Your task to perform on an android device: allow notifications from all sites in the chrome app Image 0: 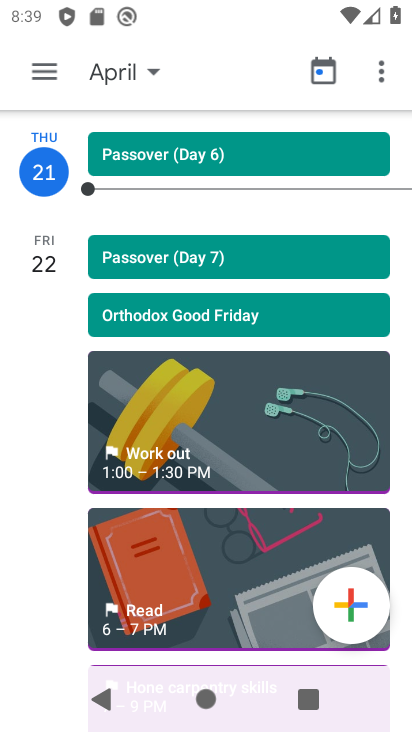
Step 0: press home button
Your task to perform on an android device: allow notifications from all sites in the chrome app Image 1: 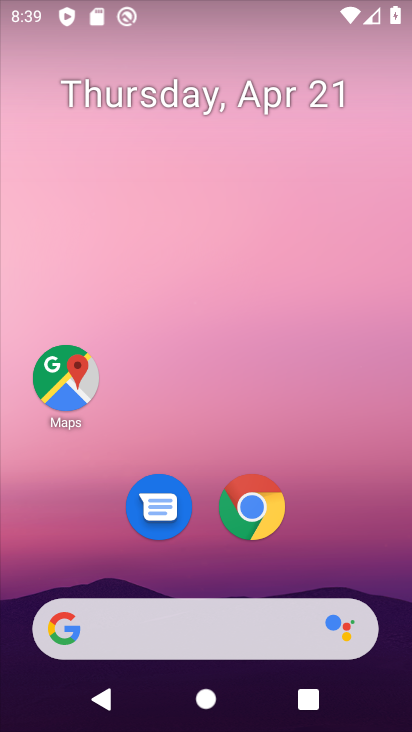
Step 1: drag from (368, 533) to (348, 137)
Your task to perform on an android device: allow notifications from all sites in the chrome app Image 2: 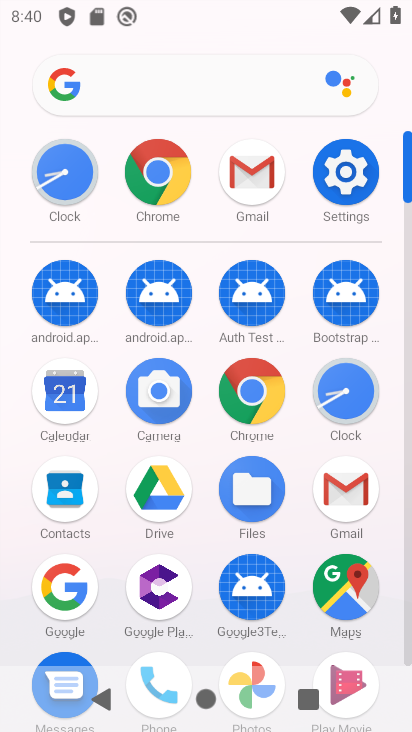
Step 2: click (272, 396)
Your task to perform on an android device: allow notifications from all sites in the chrome app Image 3: 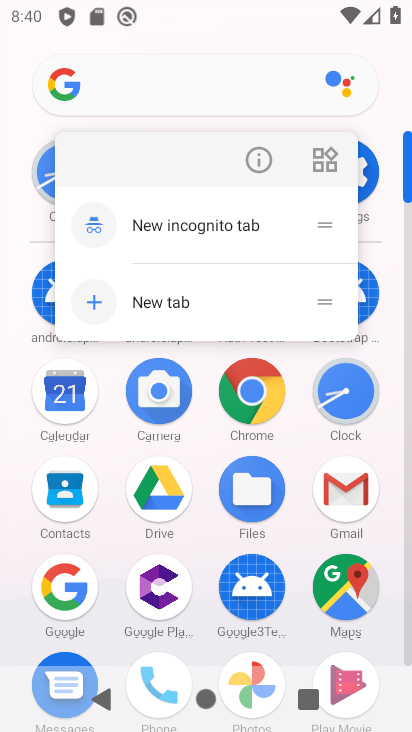
Step 3: click (275, 392)
Your task to perform on an android device: allow notifications from all sites in the chrome app Image 4: 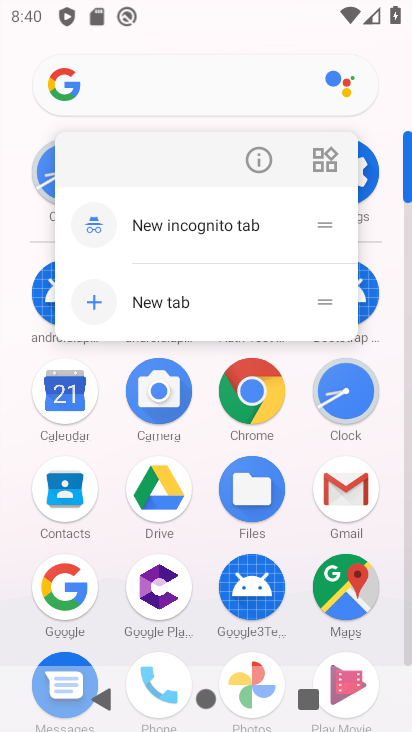
Step 4: click (240, 412)
Your task to perform on an android device: allow notifications from all sites in the chrome app Image 5: 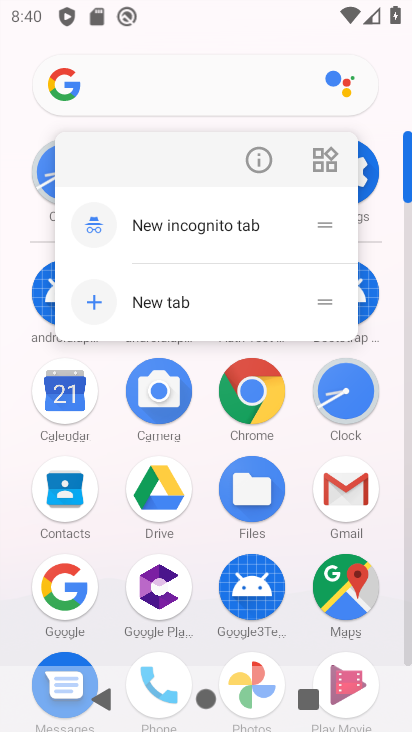
Step 5: click (241, 413)
Your task to perform on an android device: allow notifications from all sites in the chrome app Image 6: 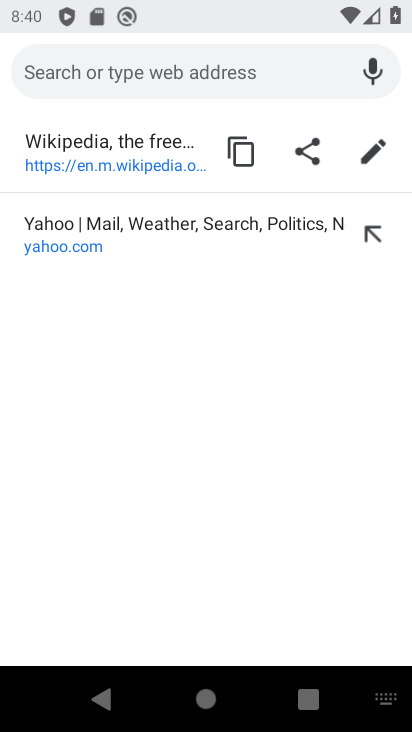
Step 6: press back button
Your task to perform on an android device: allow notifications from all sites in the chrome app Image 7: 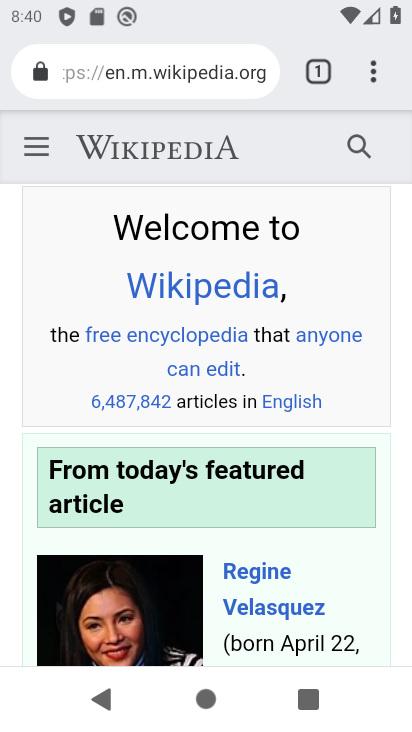
Step 7: drag from (382, 75) to (237, 507)
Your task to perform on an android device: allow notifications from all sites in the chrome app Image 8: 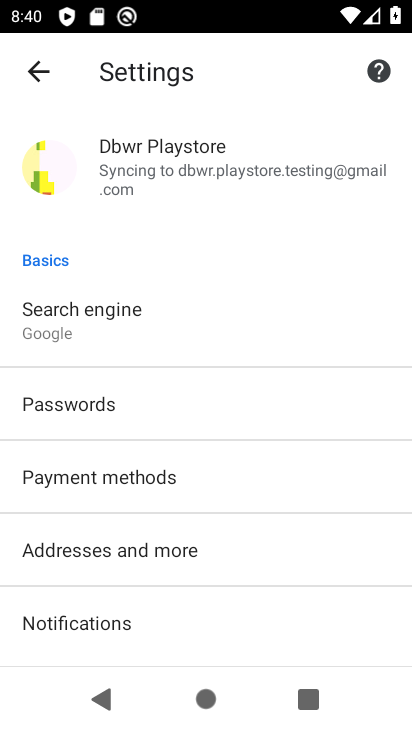
Step 8: drag from (211, 618) to (248, 268)
Your task to perform on an android device: allow notifications from all sites in the chrome app Image 9: 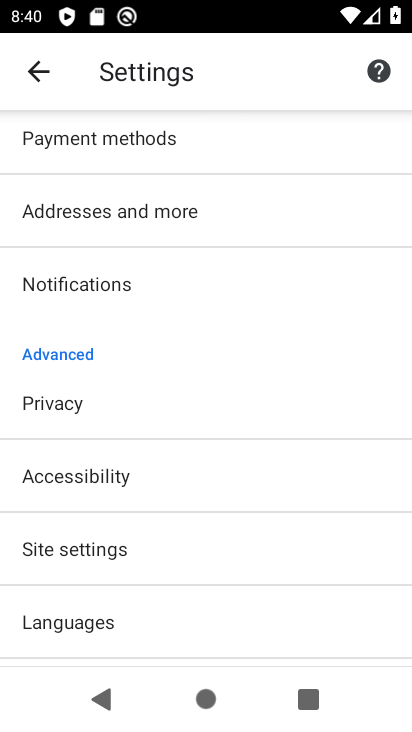
Step 9: drag from (320, 600) to (320, 378)
Your task to perform on an android device: allow notifications from all sites in the chrome app Image 10: 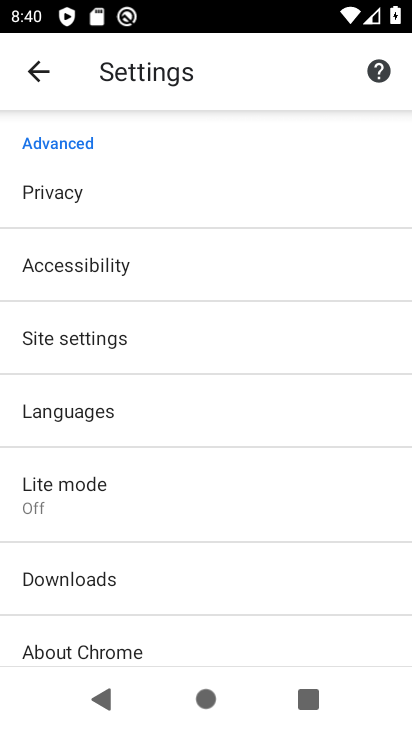
Step 10: click (112, 345)
Your task to perform on an android device: allow notifications from all sites in the chrome app Image 11: 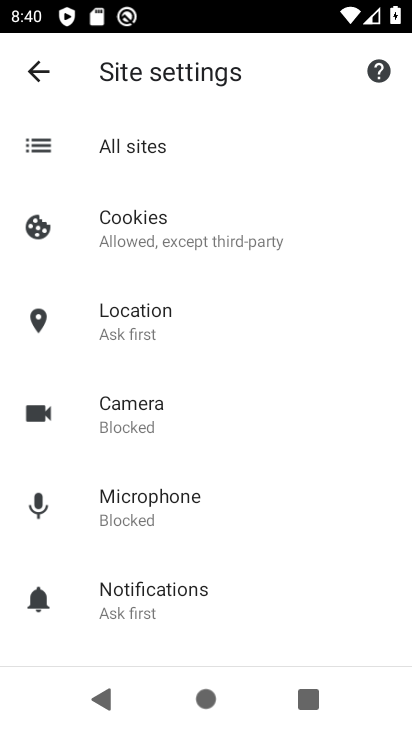
Step 11: click (192, 157)
Your task to perform on an android device: allow notifications from all sites in the chrome app Image 12: 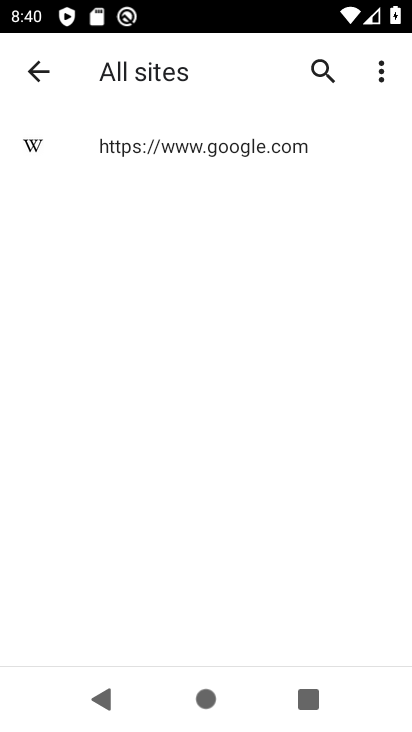
Step 12: click (215, 143)
Your task to perform on an android device: allow notifications from all sites in the chrome app Image 13: 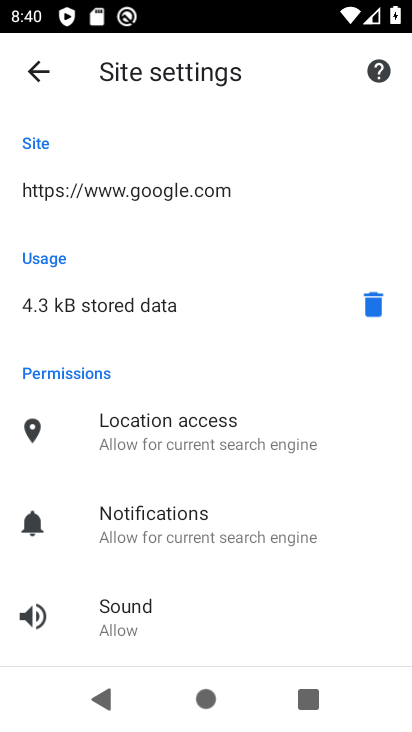
Step 13: task complete